Your task to perform on an android device: change timer sound Image 0: 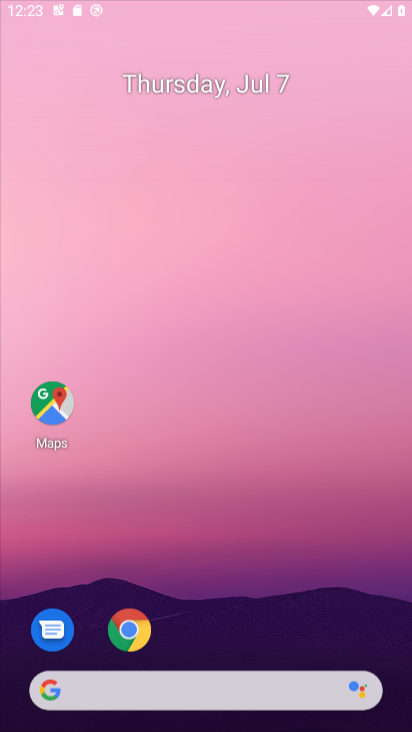
Step 0: click (275, 224)
Your task to perform on an android device: change timer sound Image 1: 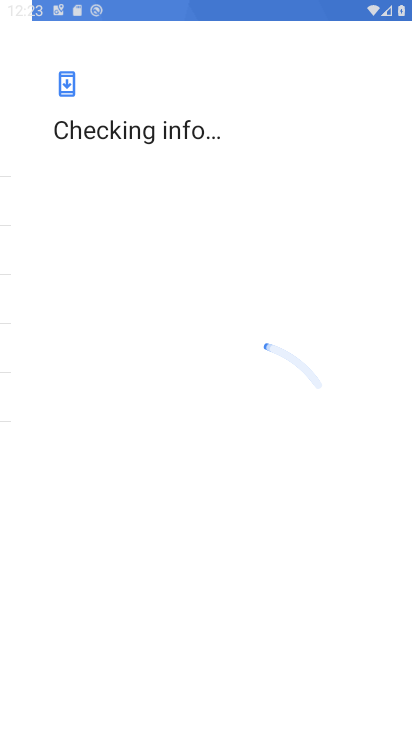
Step 1: press home button
Your task to perform on an android device: change timer sound Image 2: 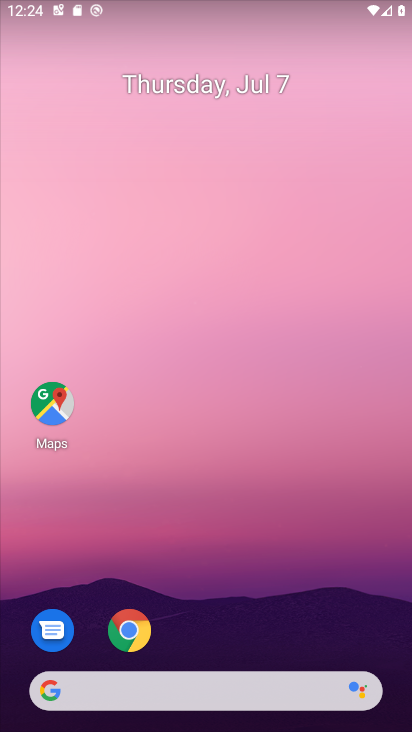
Step 2: drag from (236, 679) to (281, 304)
Your task to perform on an android device: change timer sound Image 3: 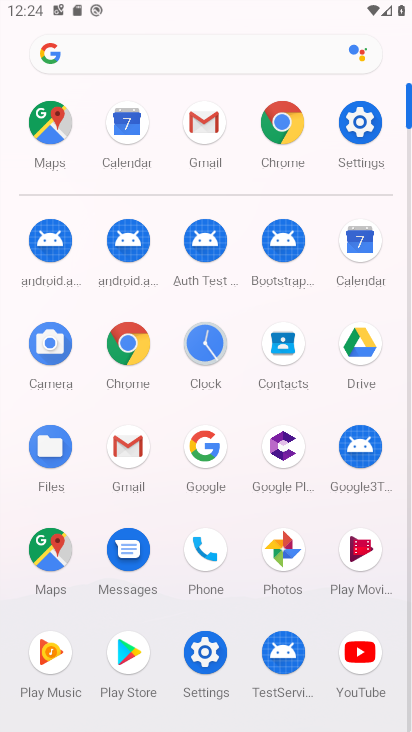
Step 3: click (204, 333)
Your task to perform on an android device: change timer sound Image 4: 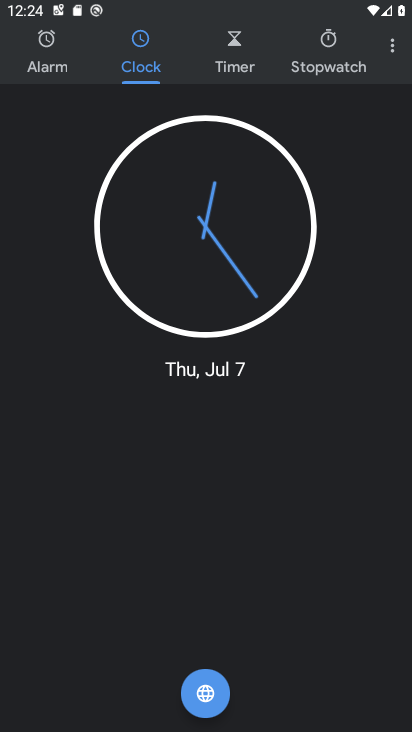
Step 4: click (394, 51)
Your task to perform on an android device: change timer sound Image 5: 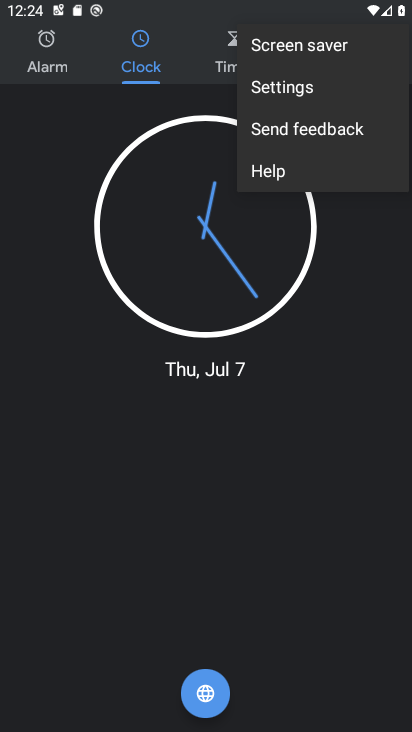
Step 5: click (293, 99)
Your task to perform on an android device: change timer sound Image 6: 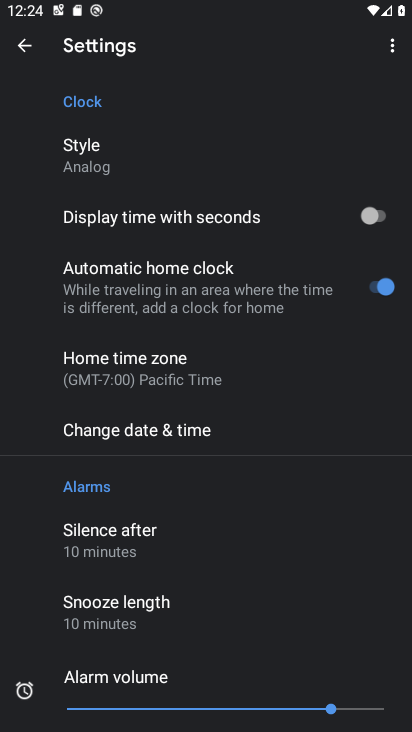
Step 6: drag from (141, 593) to (157, 348)
Your task to perform on an android device: change timer sound Image 7: 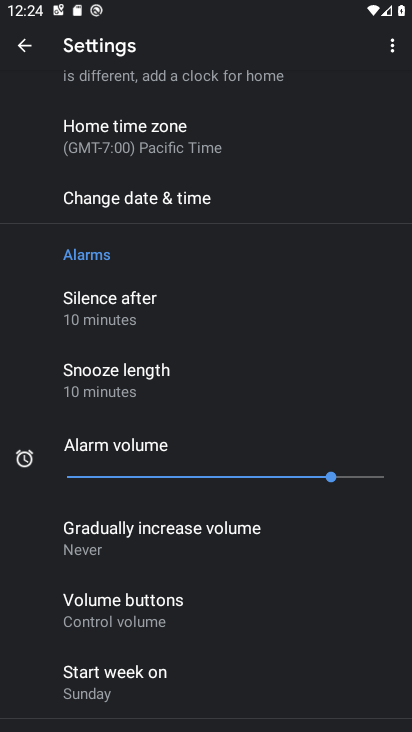
Step 7: drag from (171, 185) to (123, 490)
Your task to perform on an android device: change timer sound Image 8: 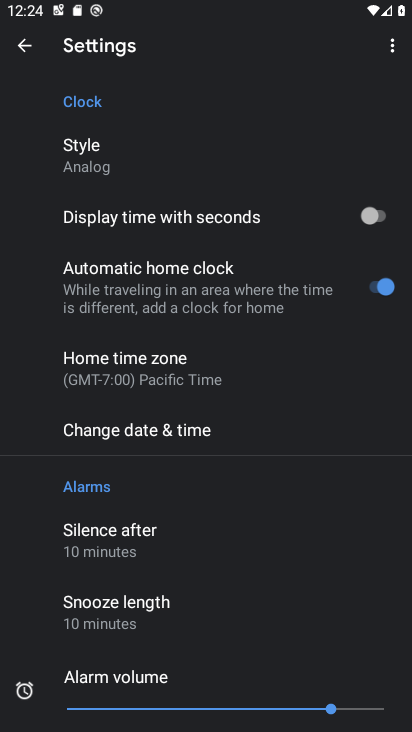
Step 8: drag from (183, 507) to (208, 182)
Your task to perform on an android device: change timer sound Image 9: 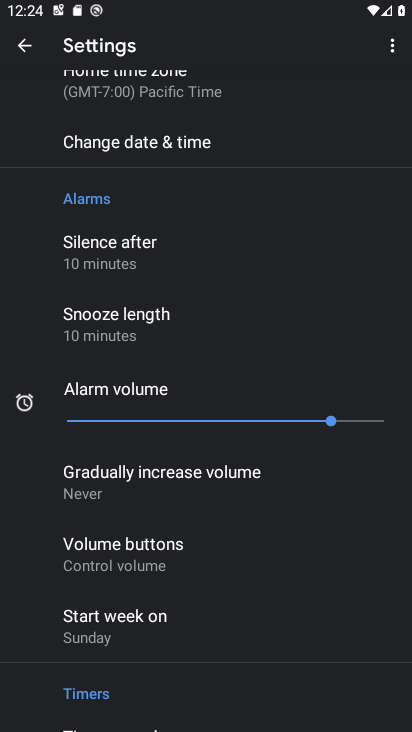
Step 9: drag from (191, 378) to (238, 101)
Your task to perform on an android device: change timer sound Image 10: 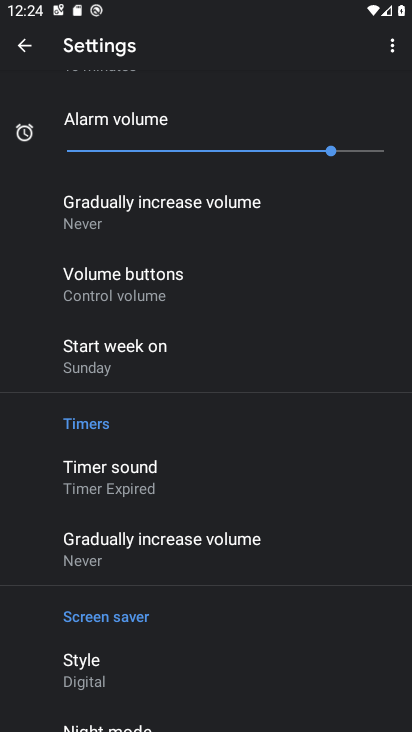
Step 10: click (95, 472)
Your task to perform on an android device: change timer sound Image 11: 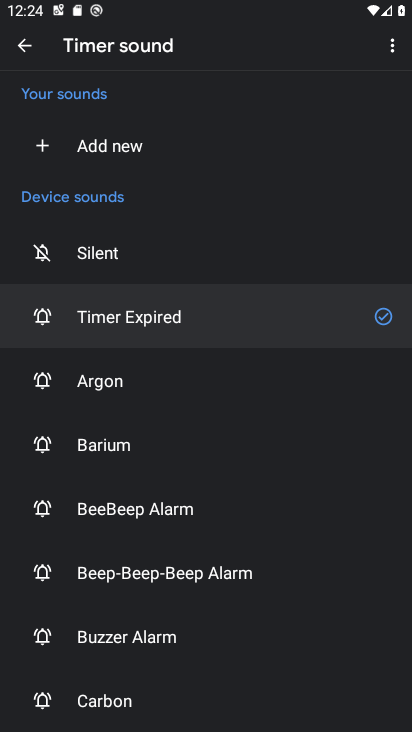
Step 11: click (179, 514)
Your task to perform on an android device: change timer sound Image 12: 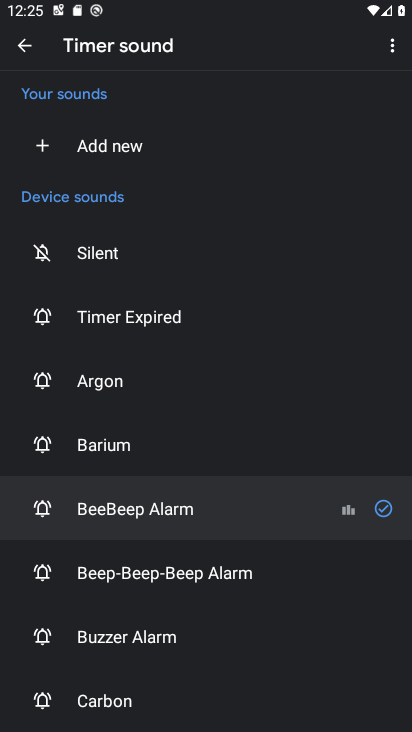
Step 12: task complete